Your task to perform on an android device: turn on notifications settings in the gmail app Image 0: 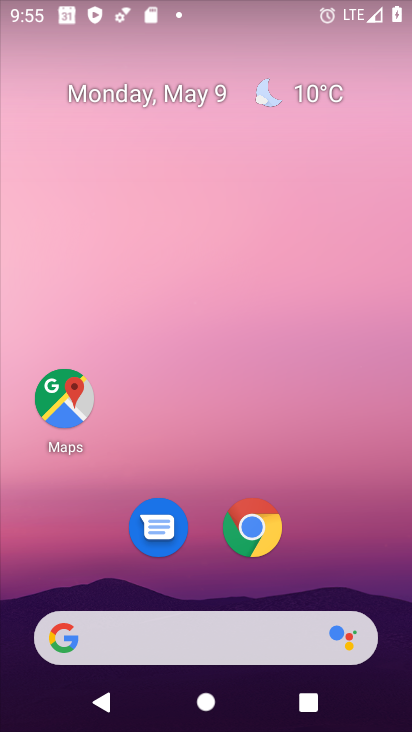
Step 0: drag from (395, 653) to (91, 41)
Your task to perform on an android device: turn on notifications settings in the gmail app Image 1: 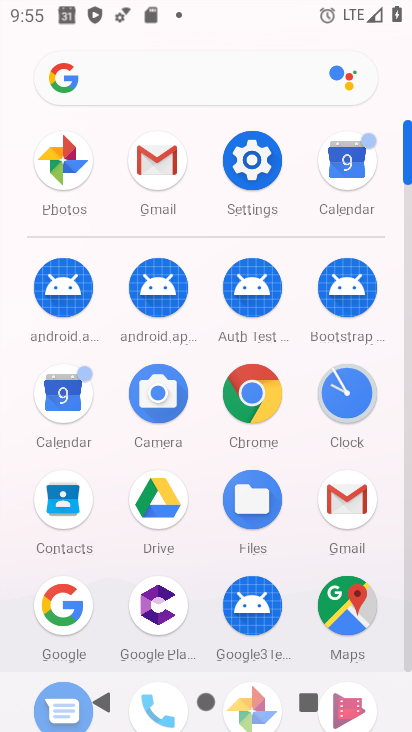
Step 1: click (345, 498)
Your task to perform on an android device: turn on notifications settings in the gmail app Image 2: 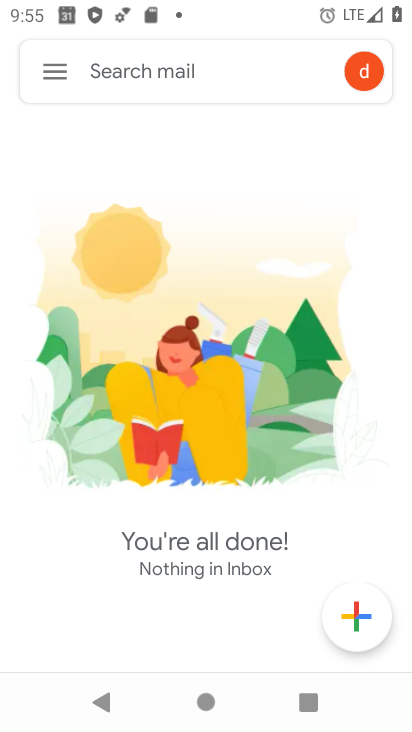
Step 2: click (54, 62)
Your task to perform on an android device: turn on notifications settings in the gmail app Image 3: 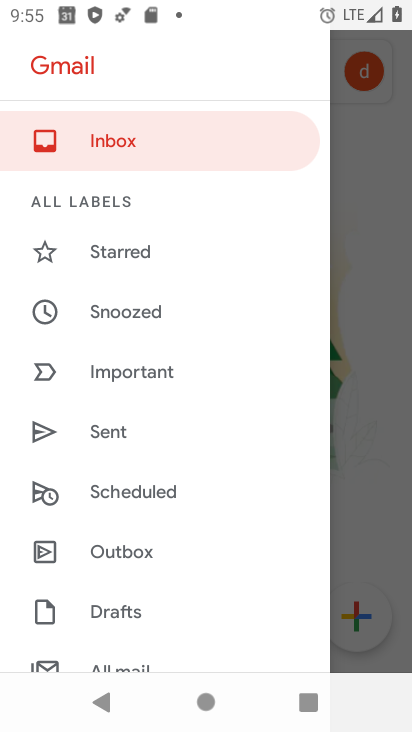
Step 3: drag from (280, 612) to (261, 181)
Your task to perform on an android device: turn on notifications settings in the gmail app Image 4: 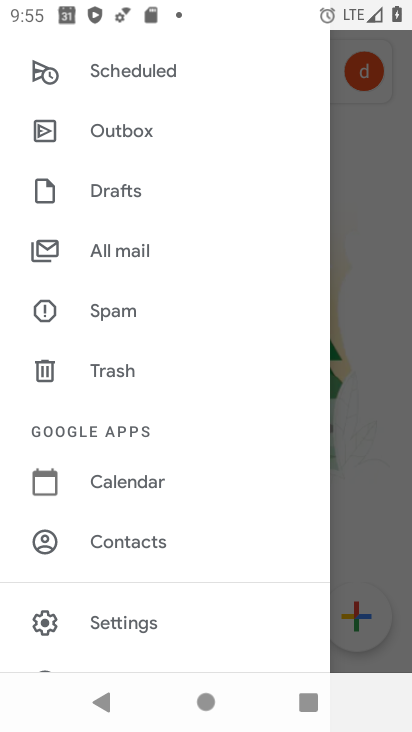
Step 4: click (129, 631)
Your task to perform on an android device: turn on notifications settings in the gmail app Image 5: 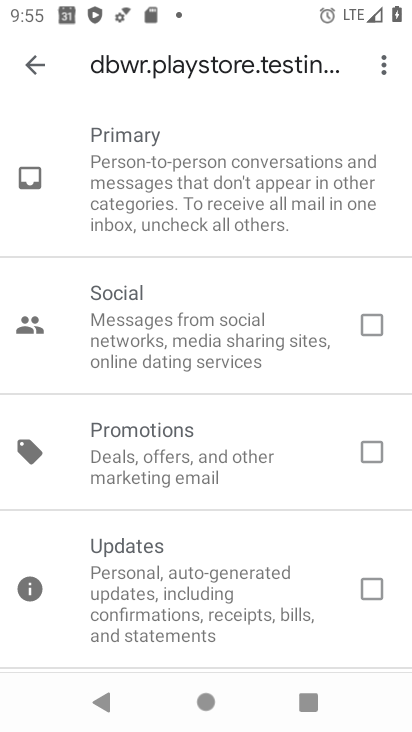
Step 5: press back button
Your task to perform on an android device: turn on notifications settings in the gmail app Image 6: 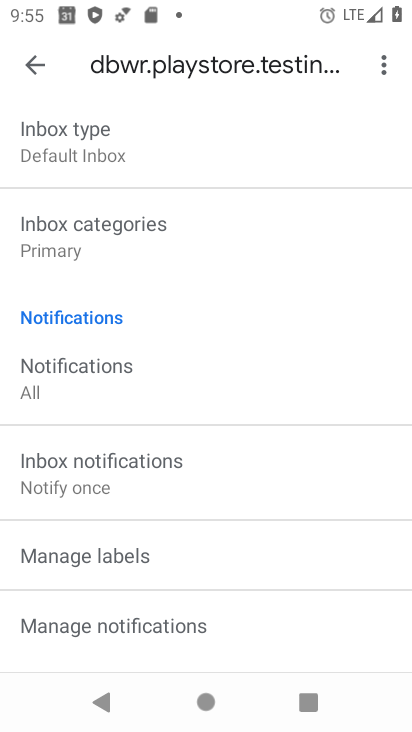
Step 6: click (137, 615)
Your task to perform on an android device: turn on notifications settings in the gmail app Image 7: 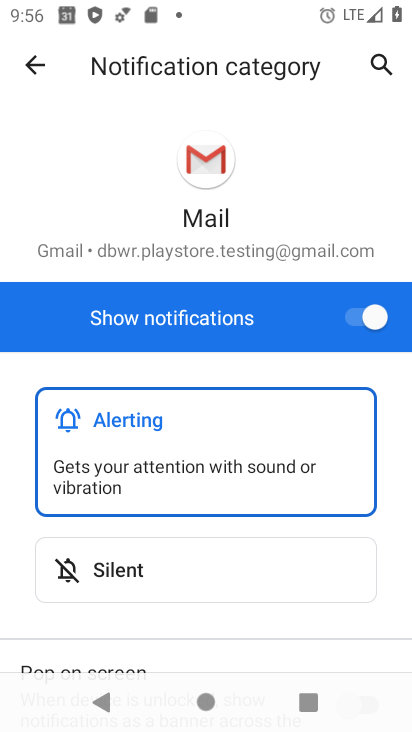
Step 7: task complete